Your task to perform on an android device: Go to Maps Image 0: 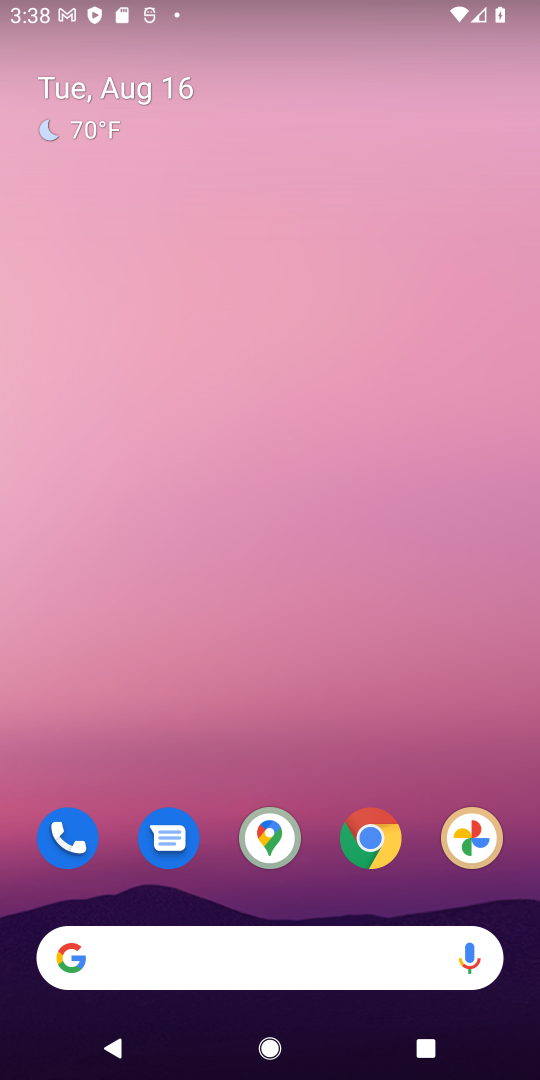
Step 0: click (294, 859)
Your task to perform on an android device: Go to Maps Image 1: 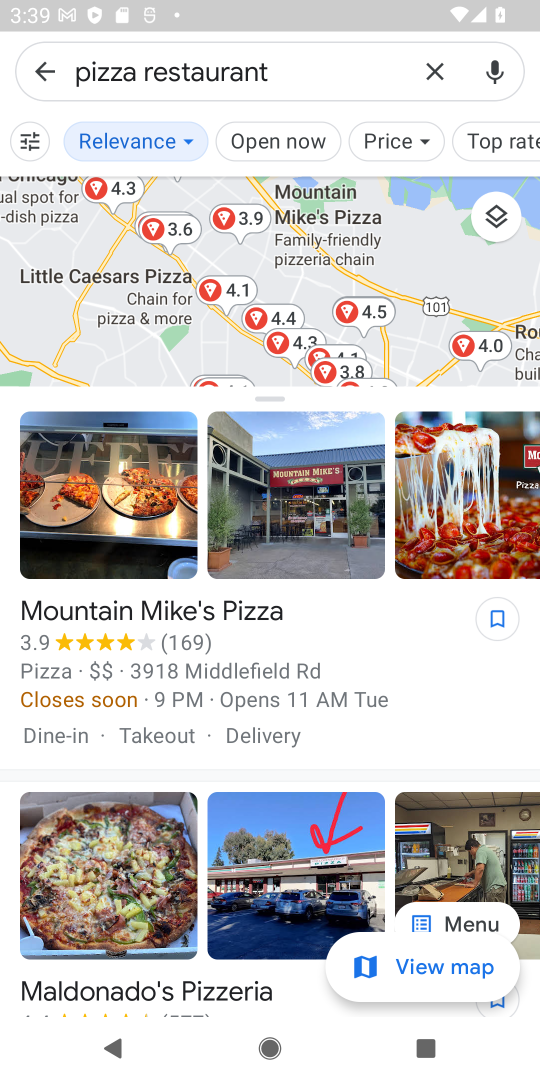
Step 1: task complete